Your task to perform on an android device: add a label to a message in the gmail app Image 0: 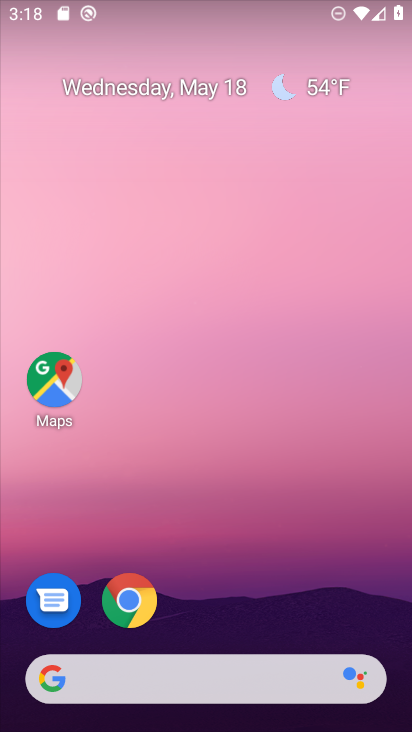
Step 0: click (344, 212)
Your task to perform on an android device: add a label to a message in the gmail app Image 1: 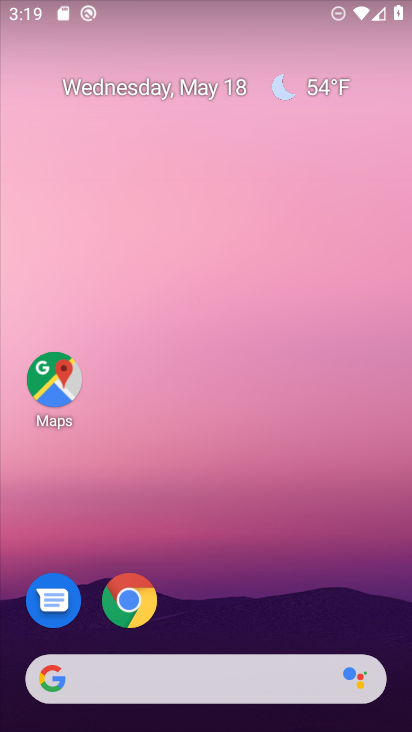
Step 1: drag from (214, 581) to (293, 7)
Your task to perform on an android device: add a label to a message in the gmail app Image 2: 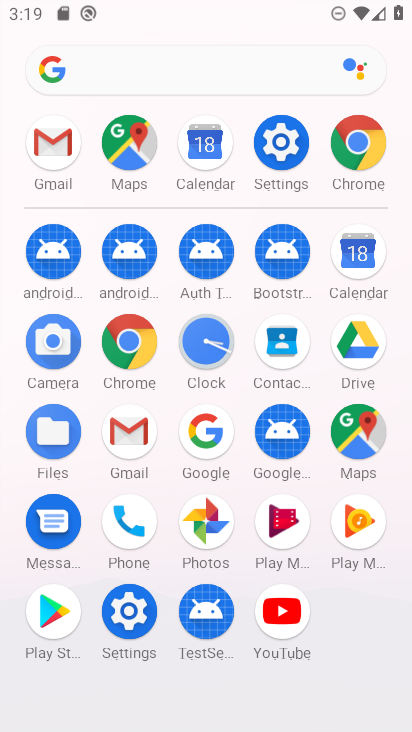
Step 2: drag from (229, 628) to (310, 18)
Your task to perform on an android device: add a label to a message in the gmail app Image 3: 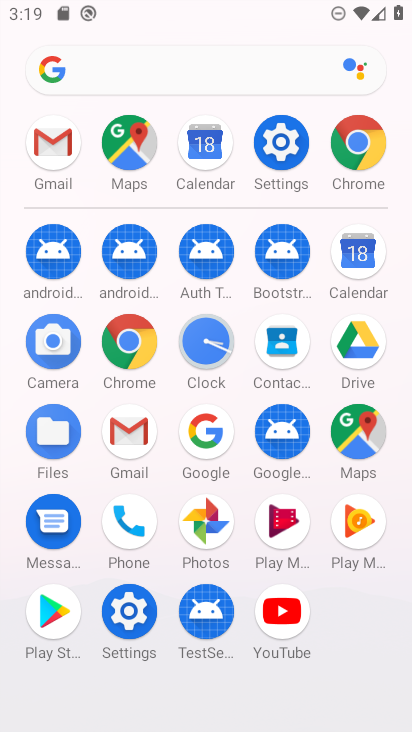
Step 3: click (131, 440)
Your task to perform on an android device: add a label to a message in the gmail app Image 4: 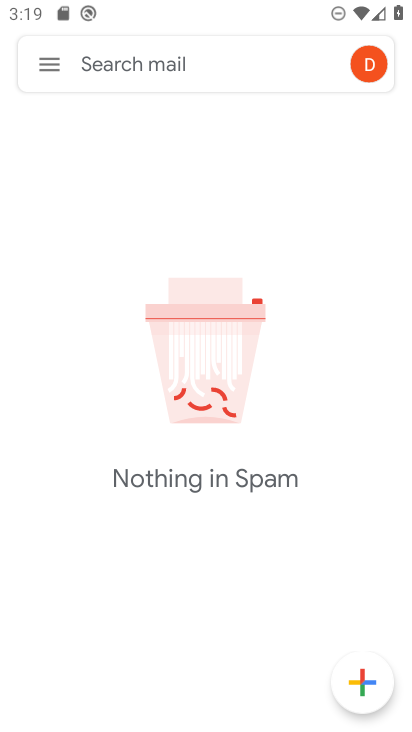
Step 4: click (58, 65)
Your task to perform on an android device: add a label to a message in the gmail app Image 5: 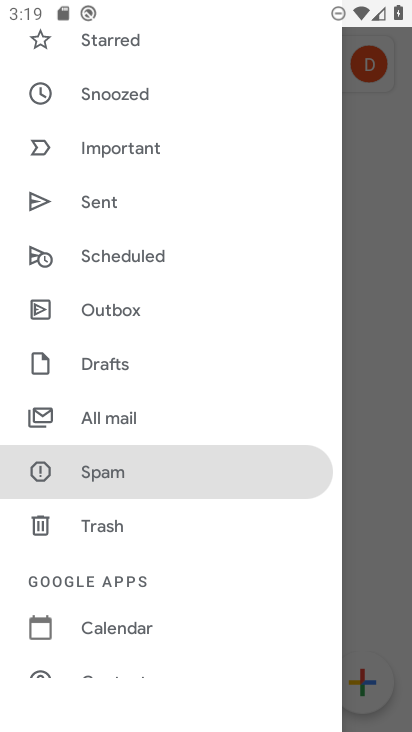
Step 5: click (116, 413)
Your task to perform on an android device: add a label to a message in the gmail app Image 6: 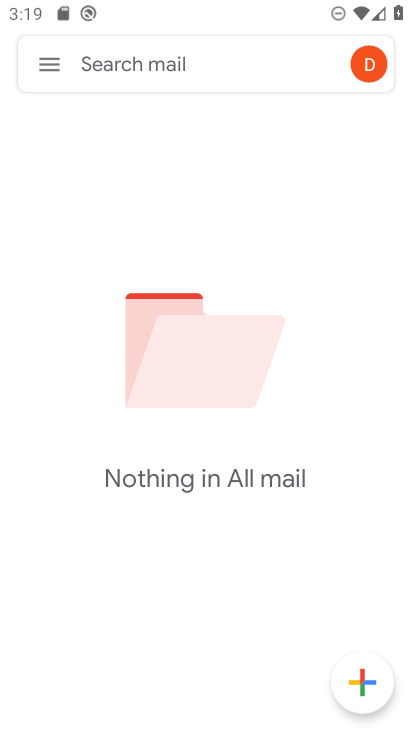
Step 6: task complete